Your task to perform on an android device: Go to Reddit.com Image 0: 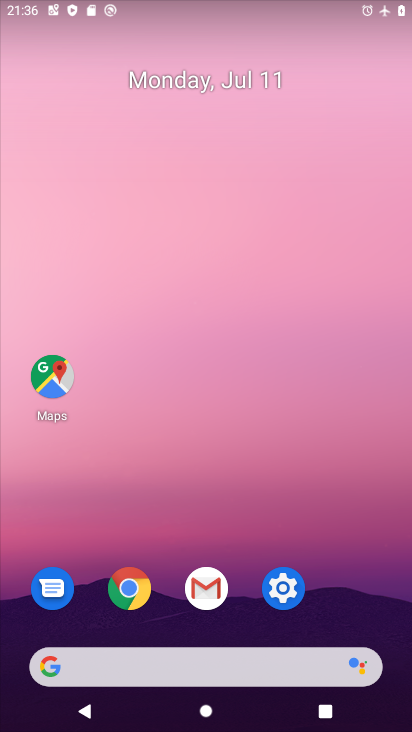
Step 0: click (123, 581)
Your task to perform on an android device: Go to Reddit.com Image 1: 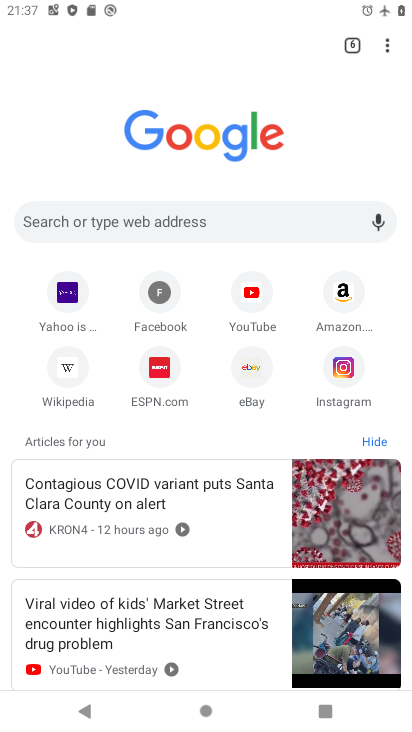
Step 1: click (105, 216)
Your task to perform on an android device: Go to Reddit.com Image 2: 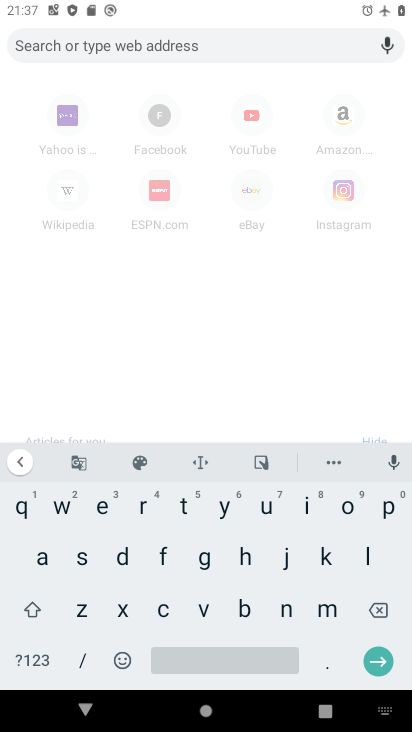
Step 2: click (142, 502)
Your task to perform on an android device: Go to Reddit.com Image 3: 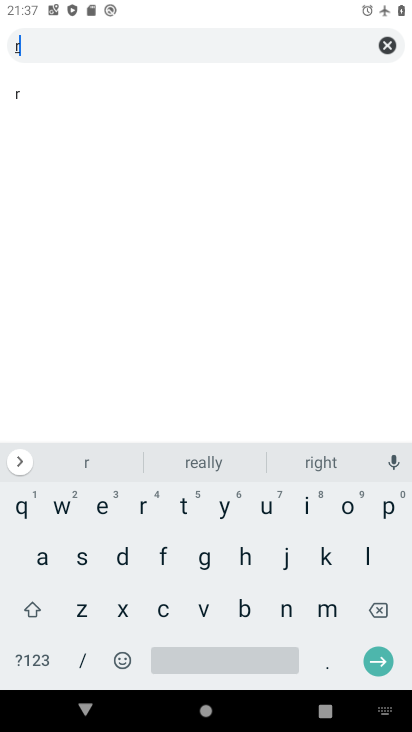
Step 3: click (96, 507)
Your task to perform on an android device: Go to Reddit.com Image 4: 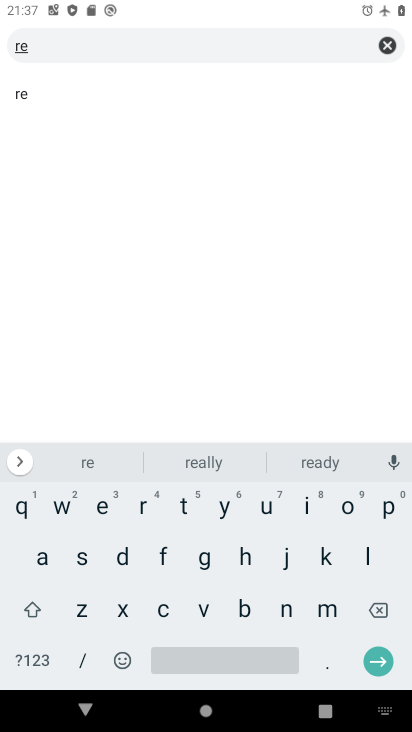
Step 4: click (118, 558)
Your task to perform on an android device: Go to Reddit.com Image 5: 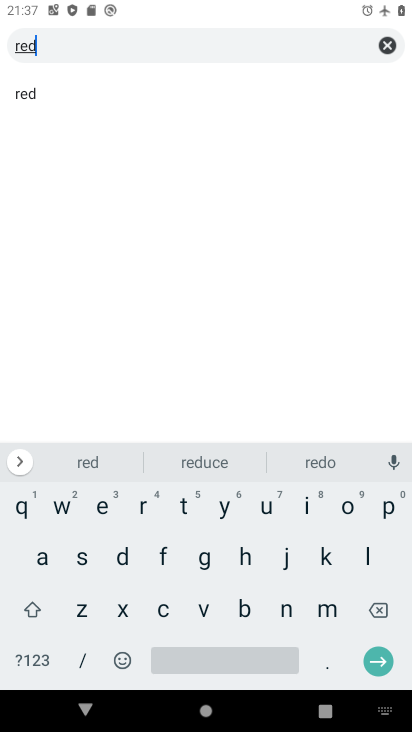
Step 5: click (118, 558)
Your task to perform on an android device: Go to Reddit.com Image 6: 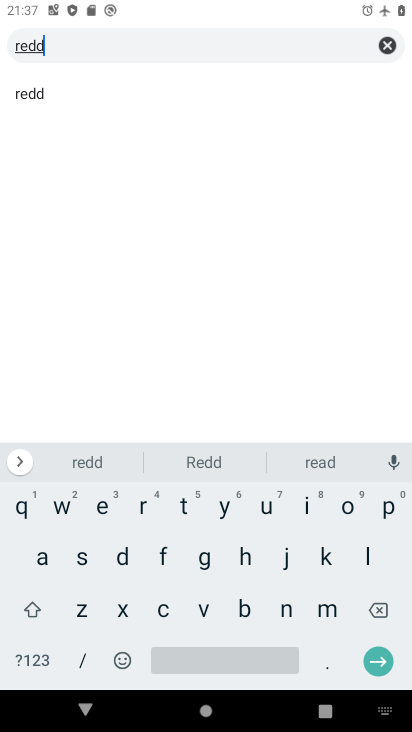
Step 6: click (305, 501)
Your task to perform on an android device: Go to Reddit.com Image 7: 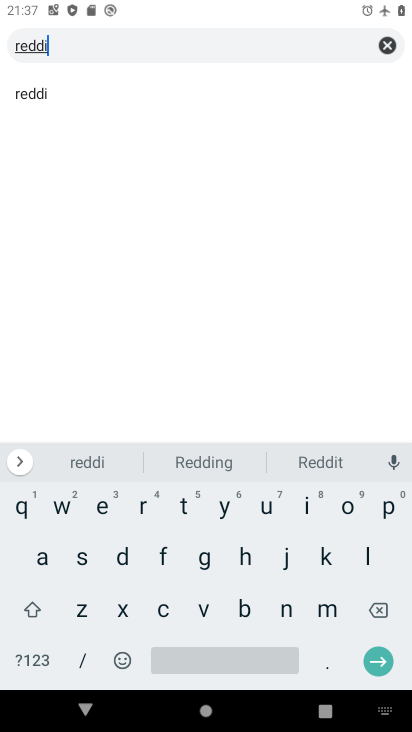
Step 7: click (325, 467)
Your task to perform on an android device: Go to Reddit.com Image 8: 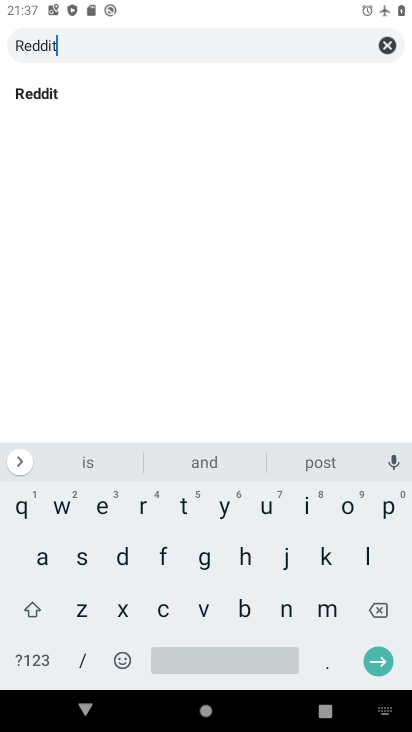
Step 8: click (378, 649)
Your task to perform on an android device: Go to Reddit.com Image 9: 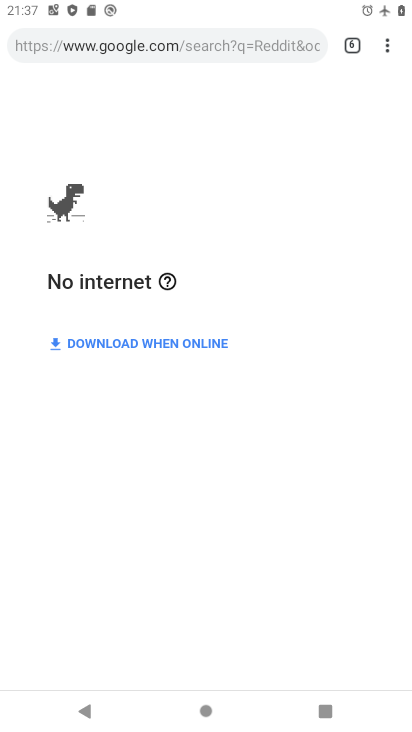
Step 9: press home button
Your task to perform on an android device: Go to Reddit.com Image 10: 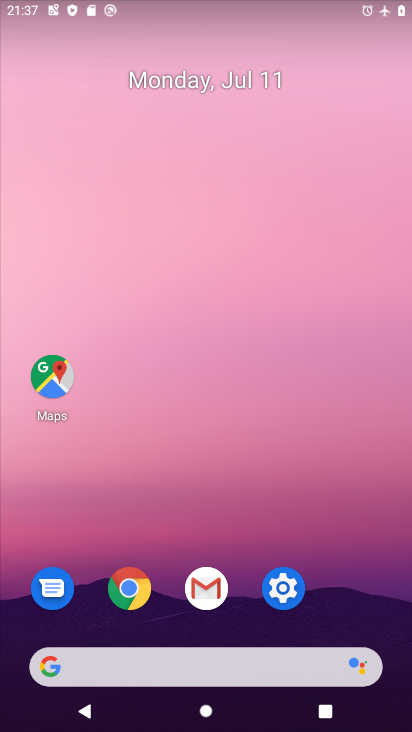
Step 10: click (283, 603)
Your task to perform on an android device: Go to Reddit.com Image 11: 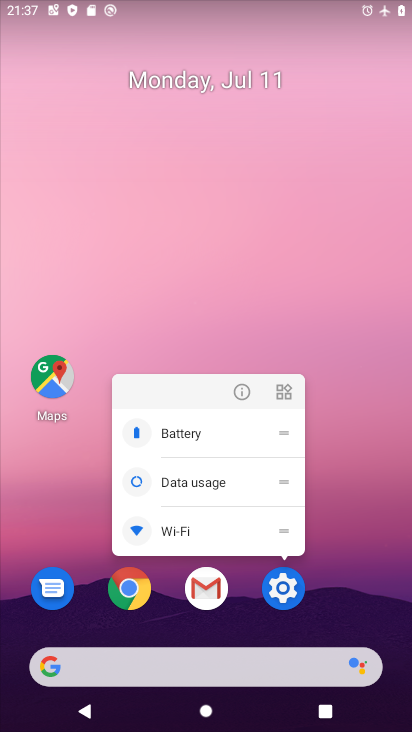
Step 11: click (292, 584)
Your task to perform on an android device: Go to Reddit.com Image 12: 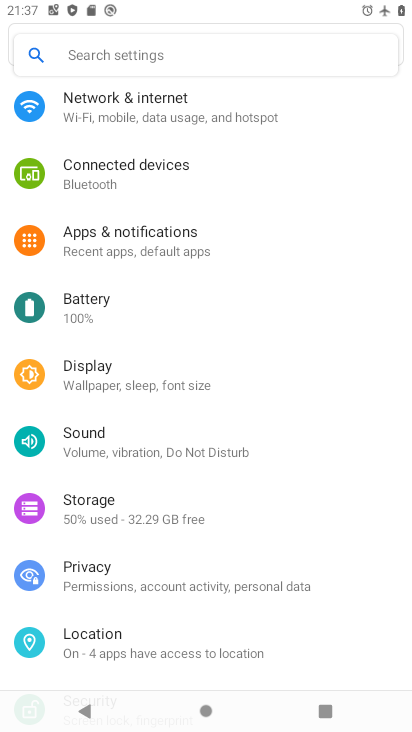
Step 12: click (152, 121)
Your task to perform on an android device: Go to Reddit.com Image 13: 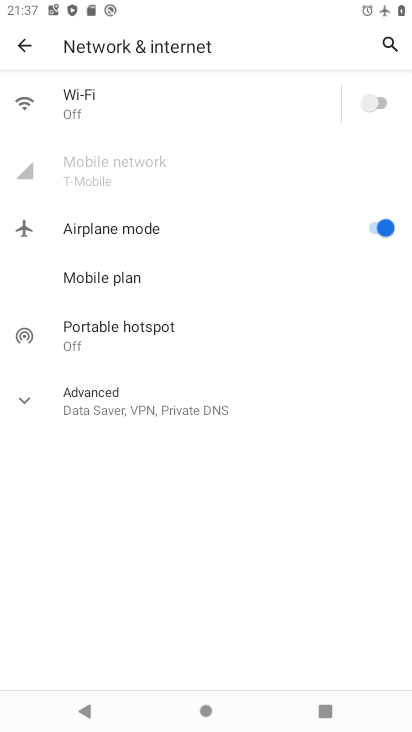
Step 13: click (376, 234)
Your task to perform on an android device: Go to Reddit.com Image 14: 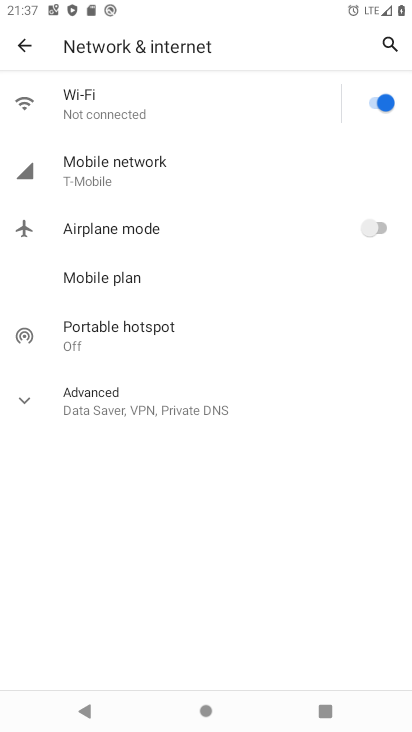
Step 14: press home button
Your task to perform on an android device: Go to Reddit.com Image 15: 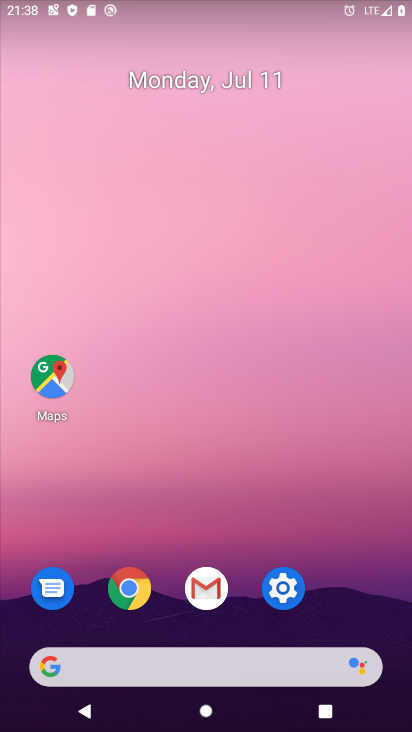
Step 15: click (129, 582)
Your task to perform on an android device: Go to Reddit.com Image 16: 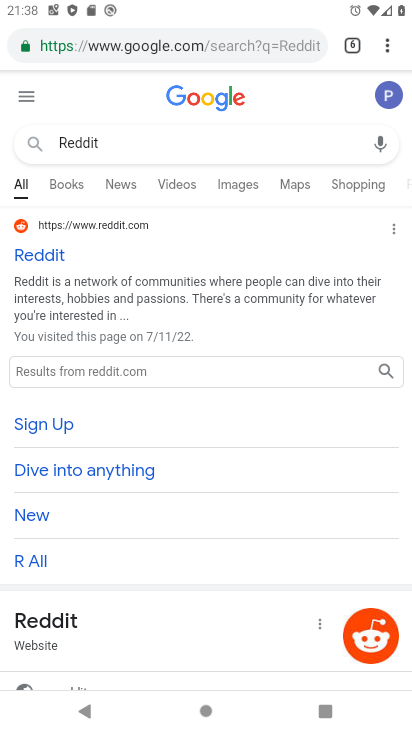
Step 16: click (40, 254)
Your task to perform on an android device: Go to Reddit.com Image 17: 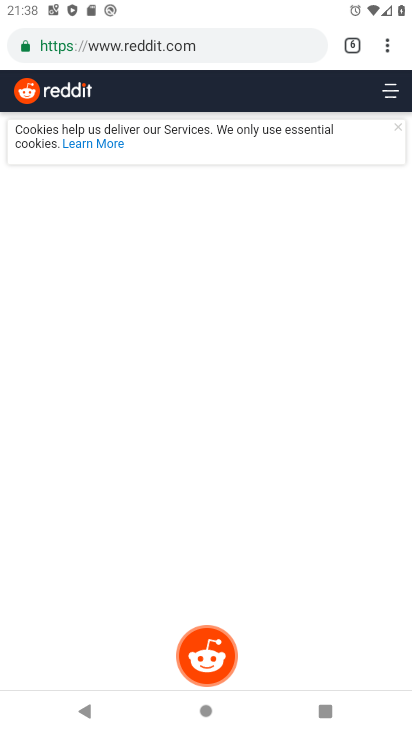
Step 17: task complete